Your task to perform on an android device: open app "Google Find My Device" Image 0: 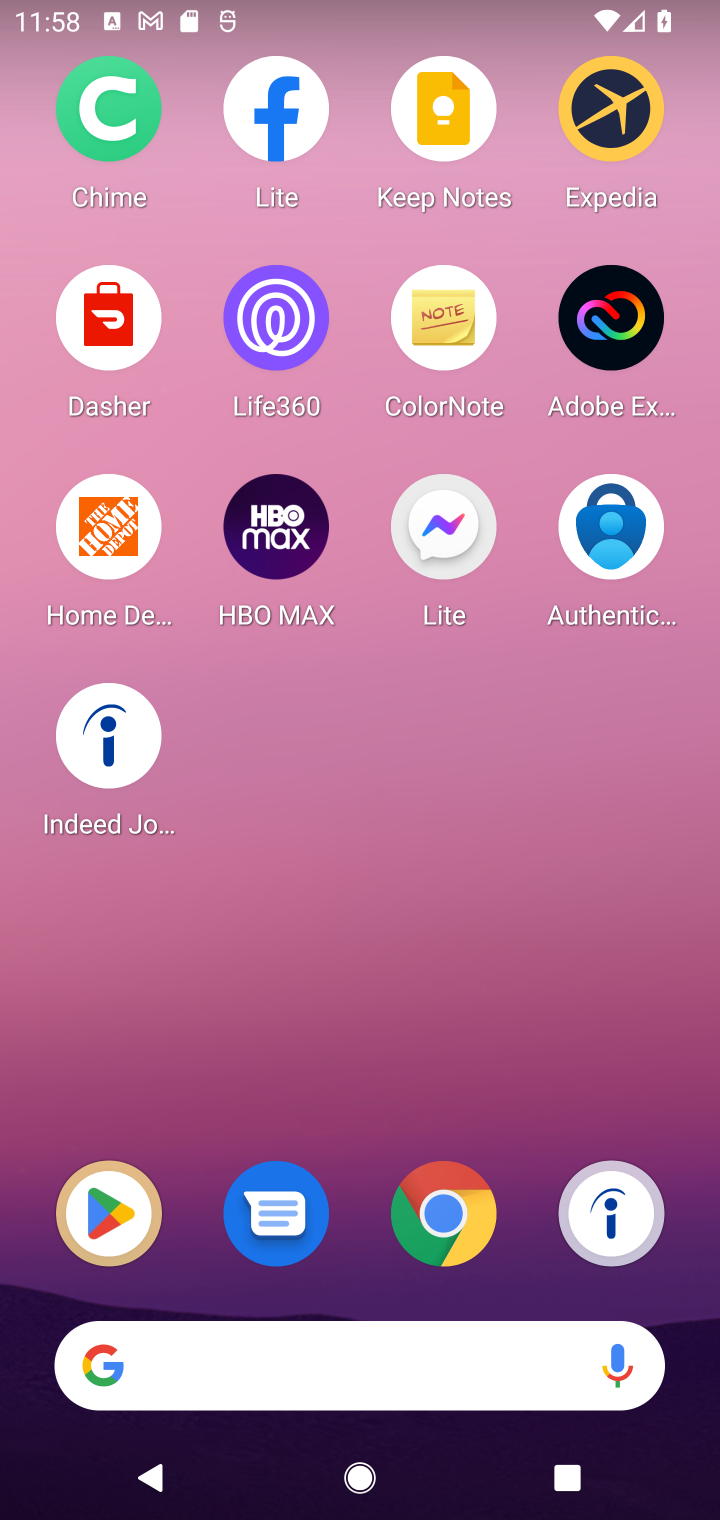
Step 0: press home button
Your task to perform on an android device: open app "Google Find My Device" Image 1: 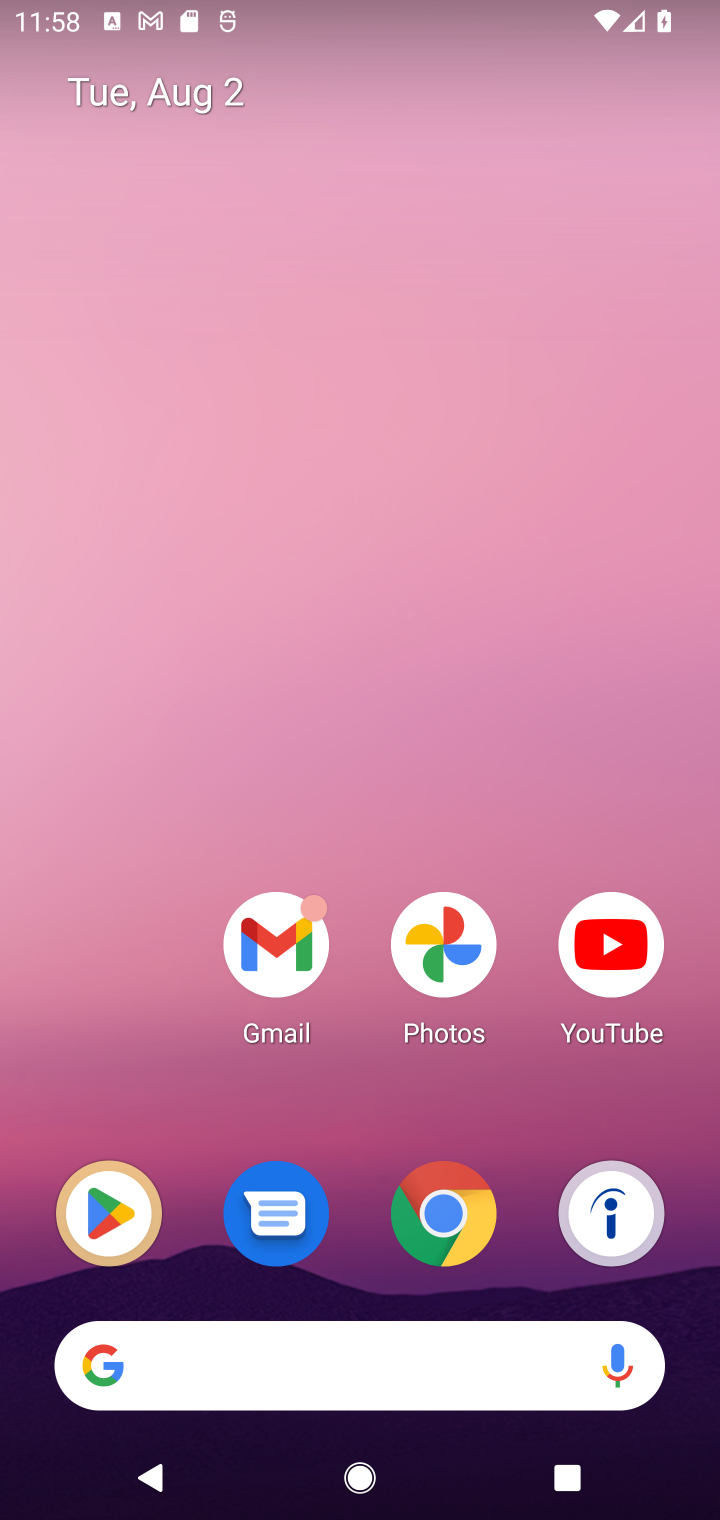
Step 1: click (85, 1226)
Your task to perform on an android device: open app "Google Find My Device" Image 2: 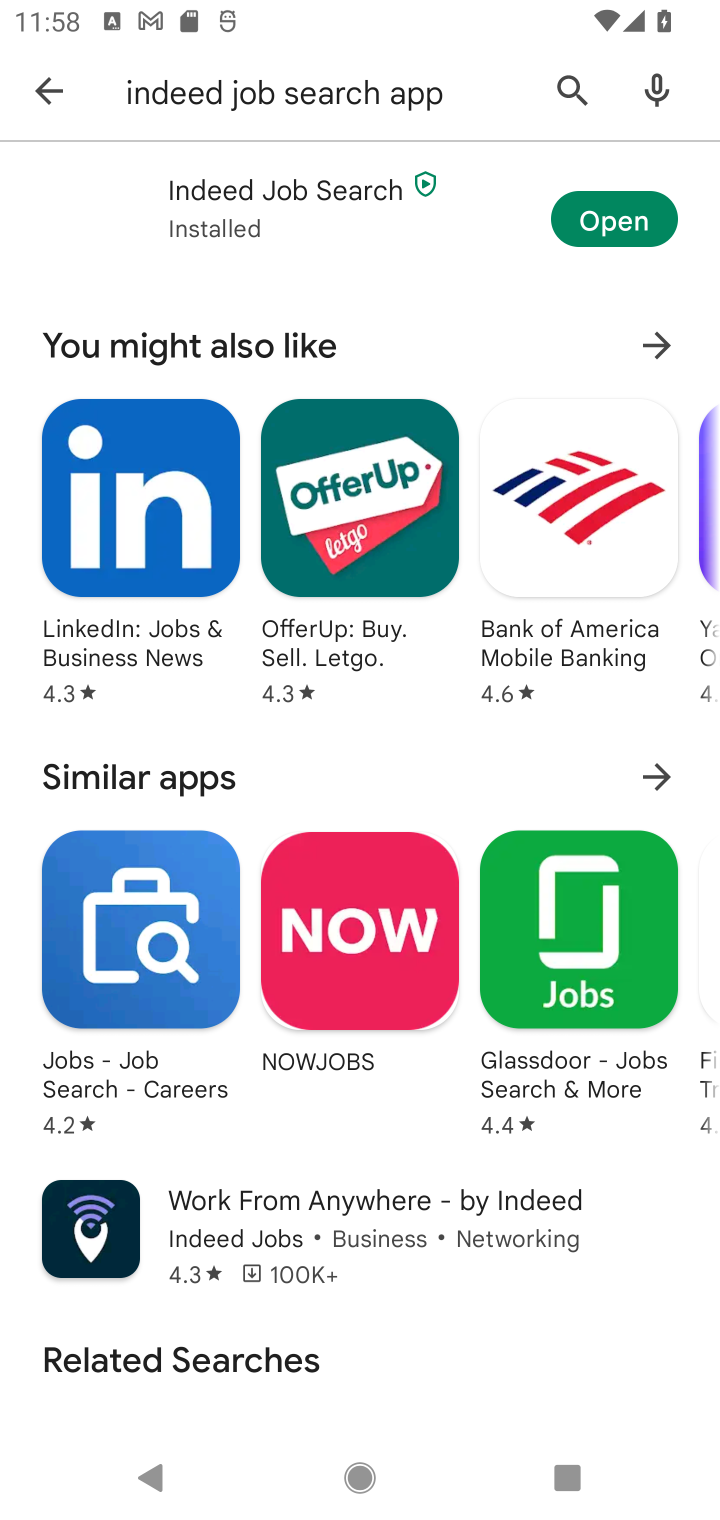
Step 2: click (46, 94)
Your task to perform on an android device: open app "Google Find My Device" Image 3: 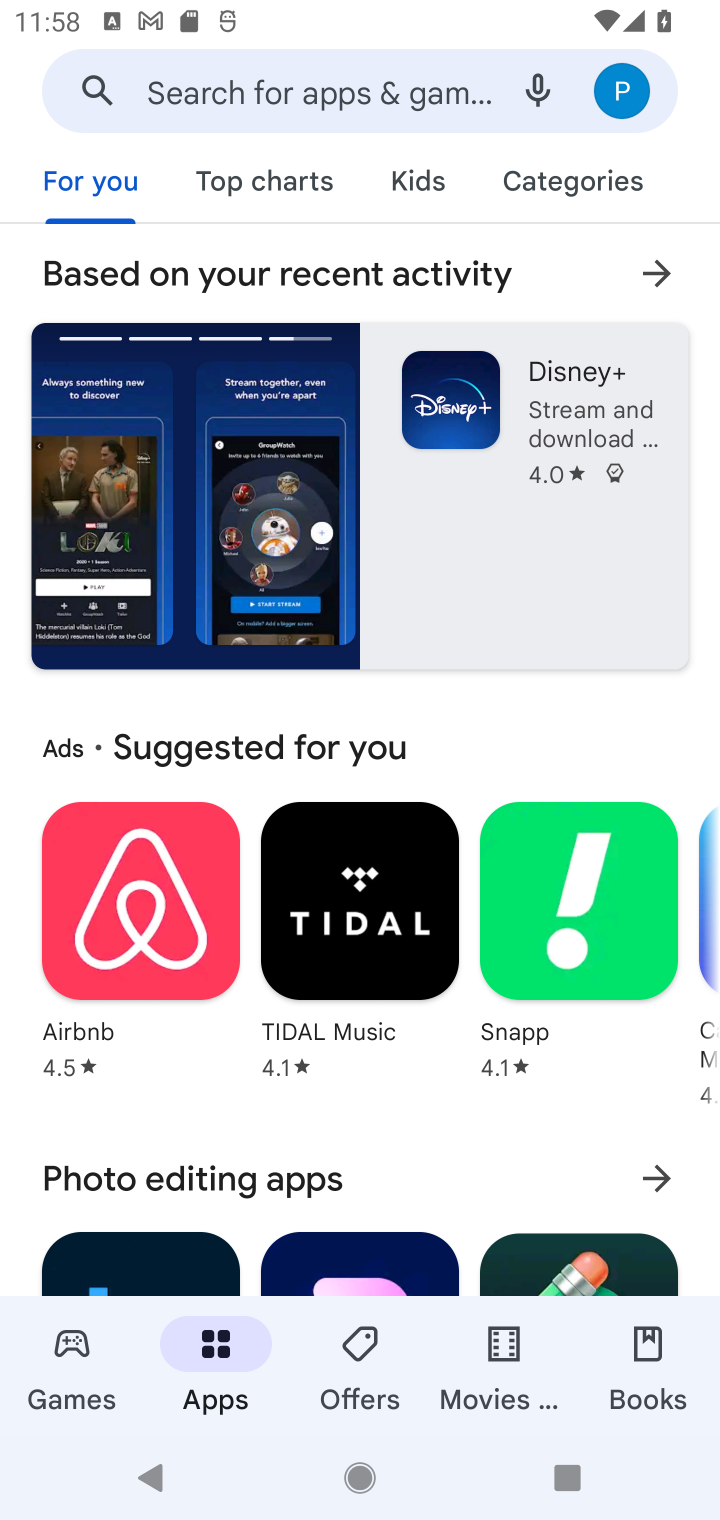
Step 3: click (251, 69)
Your task to perform on an android device: open app "Google Find My Device" Image 4: 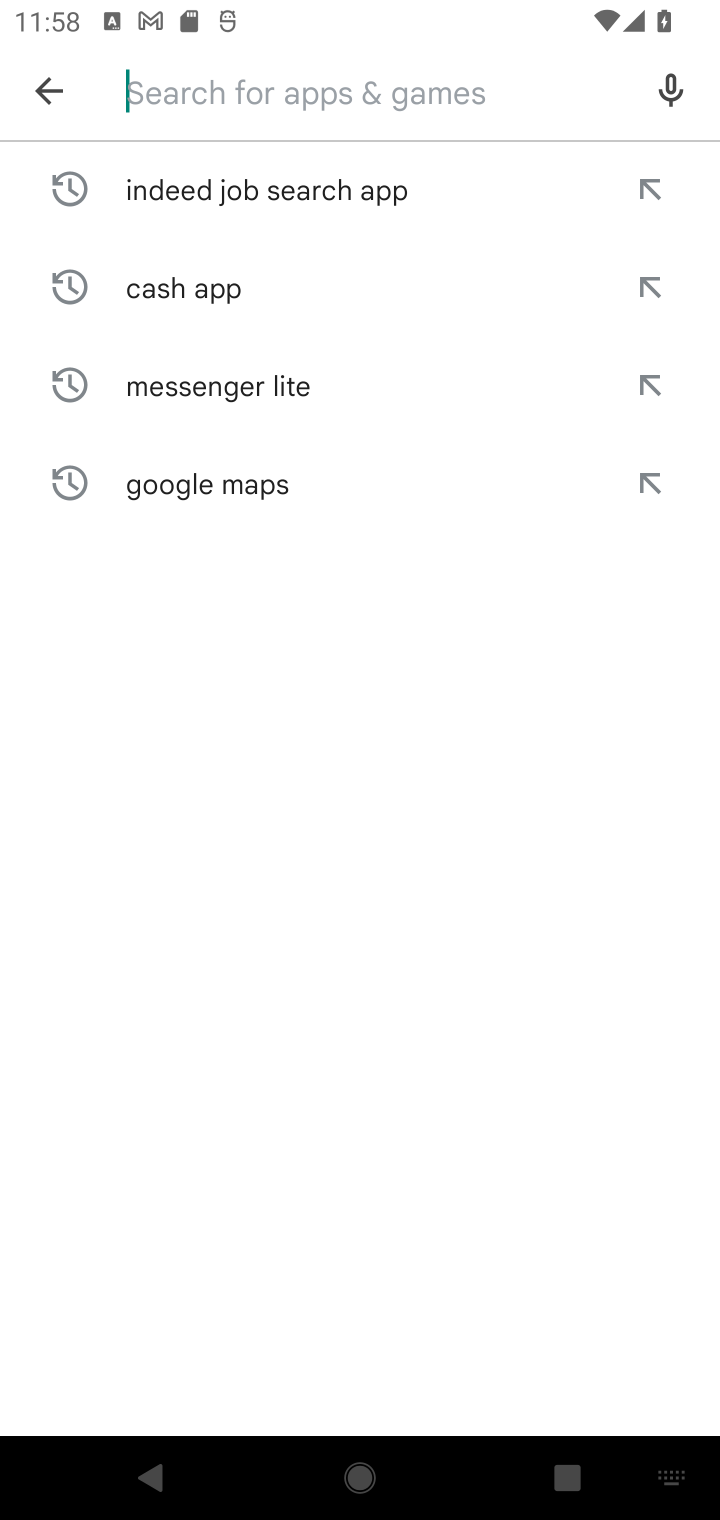
Step 4: type "Google Find My Device"
Your task to perform on an android device: open app "Google Find My Device" Image 5: 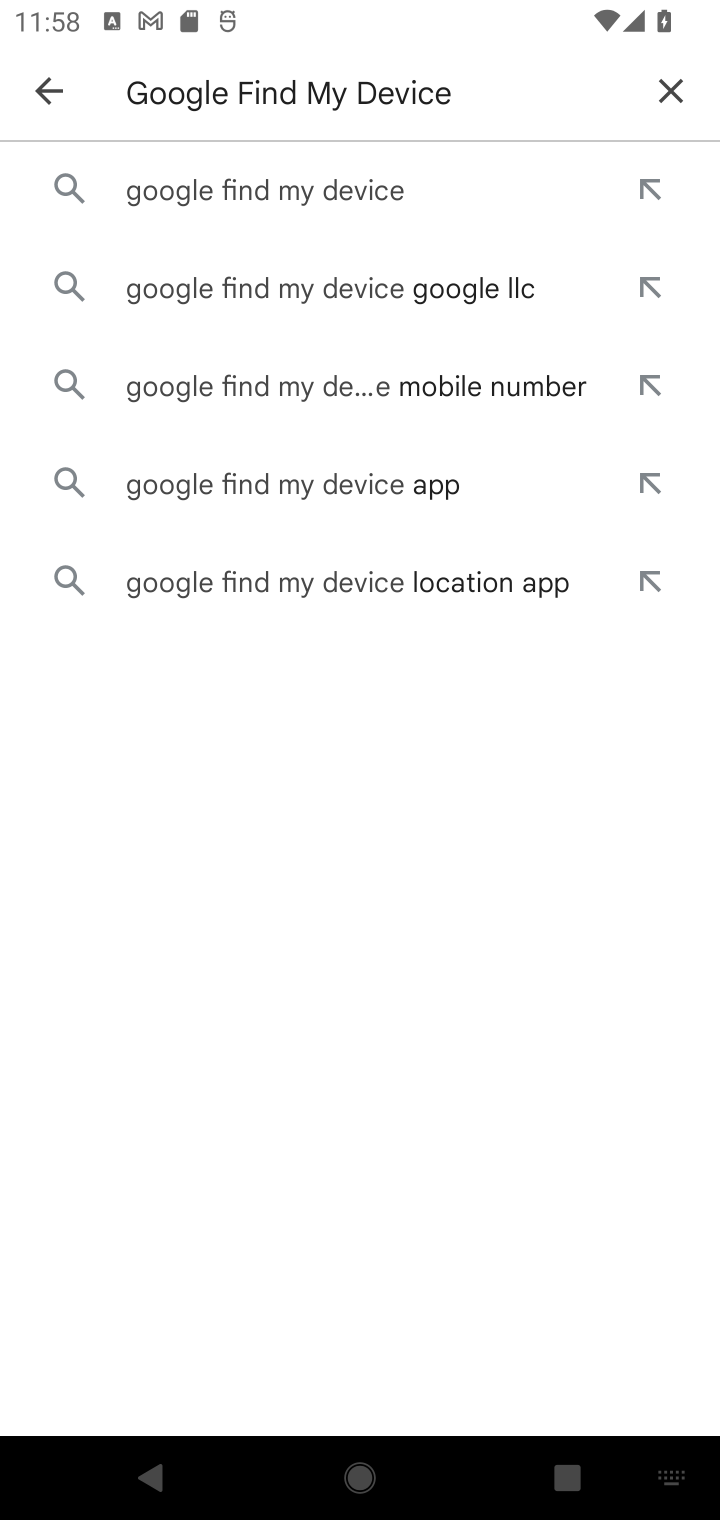
Step 5: click (346, 200)
Your task to perform on an android device: open app "Google Find My Device" Image 6: 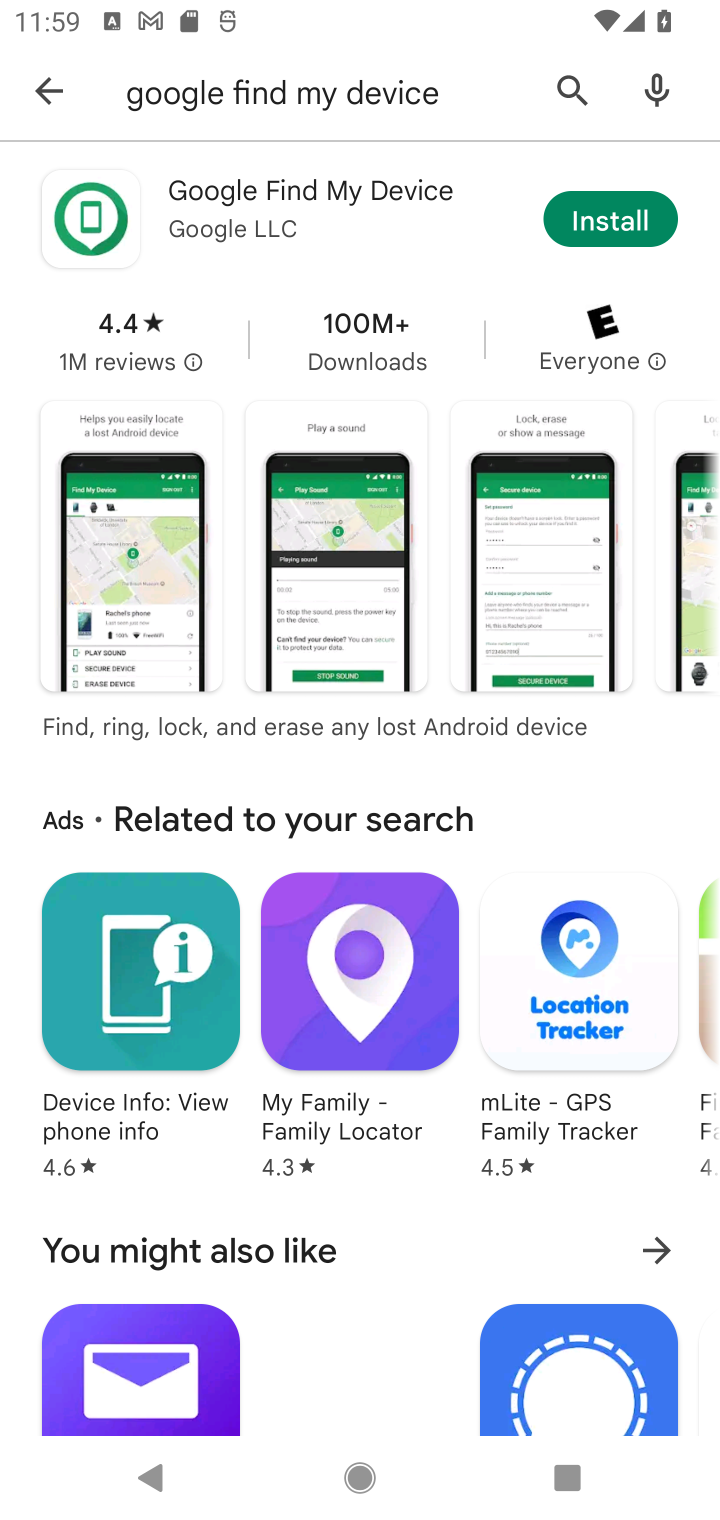
Step 6: click (586, 224)
Your task to perform on an android device: open app "Google Find My Device" Image 7: 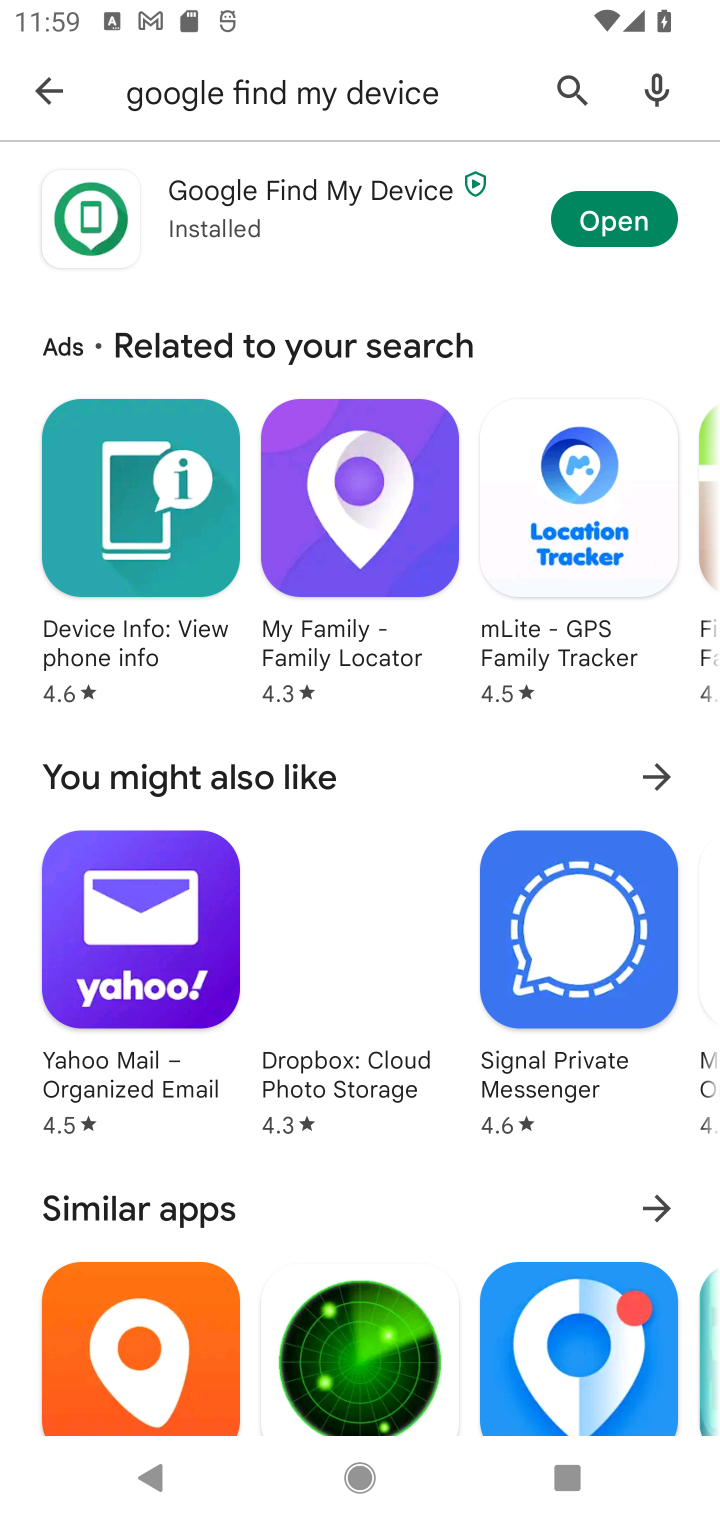
Step 7: click (601, 224)
Your task to perform on an android device: open app "Google Find My Device" Image 8: 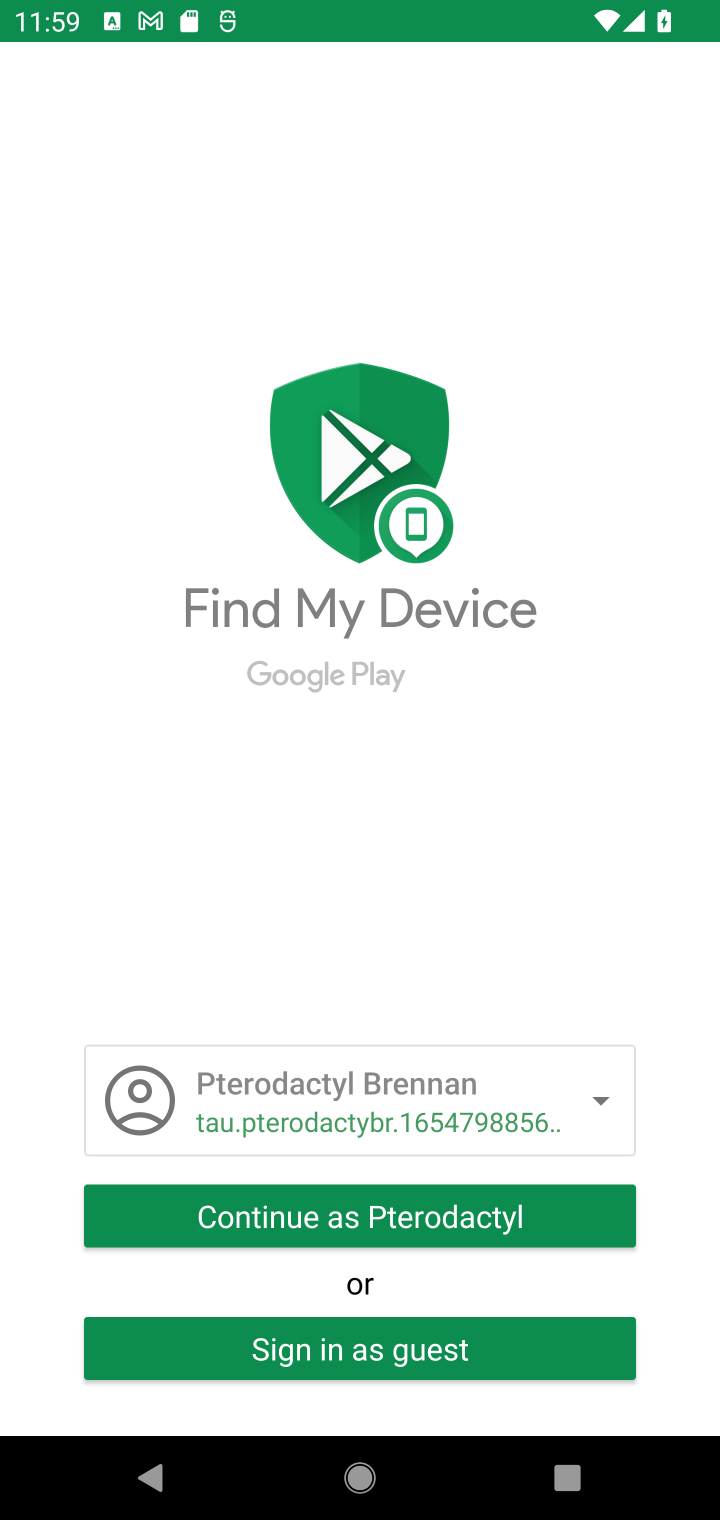
Step 8: task complete